Your task to perform on an android device: change text size in settings app Image 0: 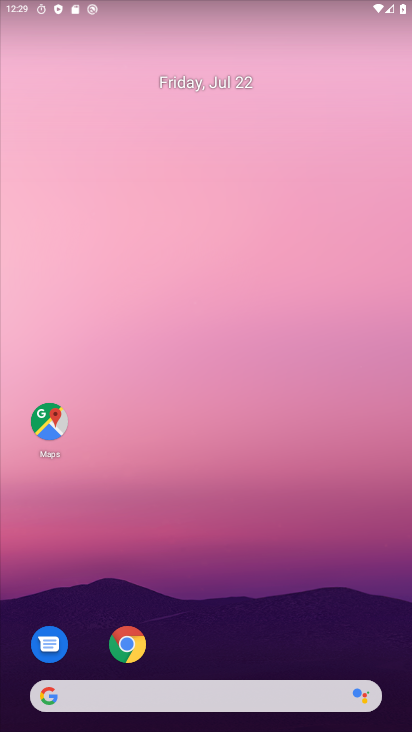
Step 0: drag from (209, 660) to (328, 105)
Your task to perform on an android device: change text size in settings app Image 1: 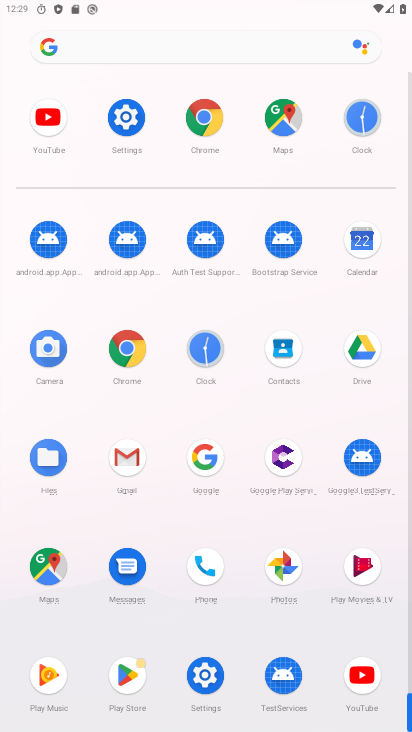
Step 1: click (207, 682)
Your task to perform on an android device: change text size in settings app Image 2: 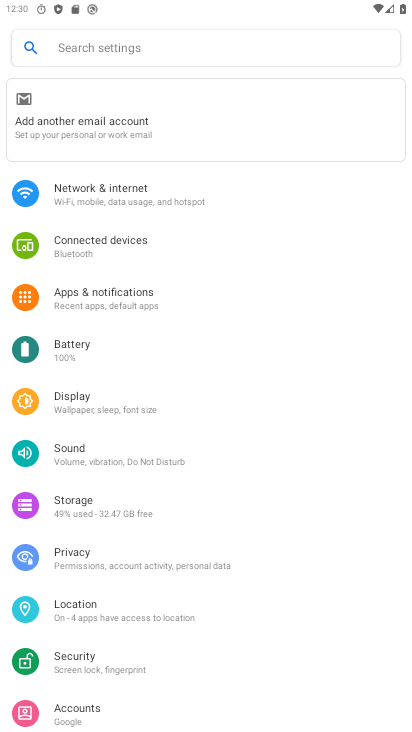
Step 2: click (138, 408)
Your task to perform on an android device: change text size in settings app Image 3: 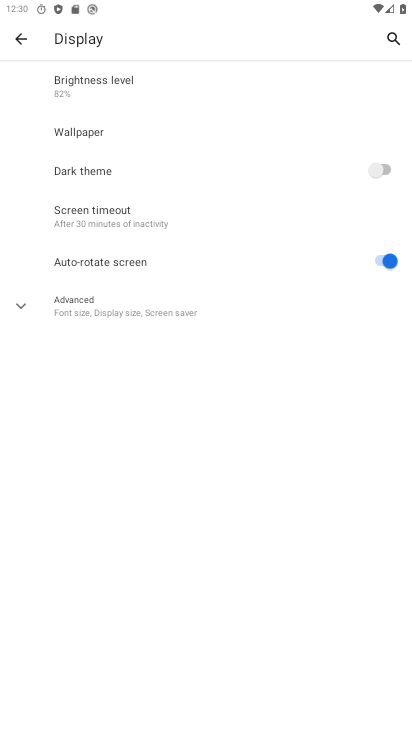
Step 3: click (121, 308)
Your task to perform on an android device: change text size in settings app Image 4: 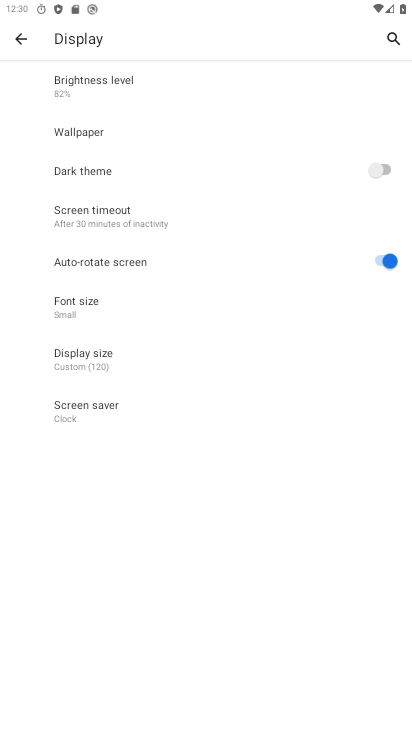
Step 4: click (94, 303)
Your task to perform on an android device: change text size in settings app Image 5: 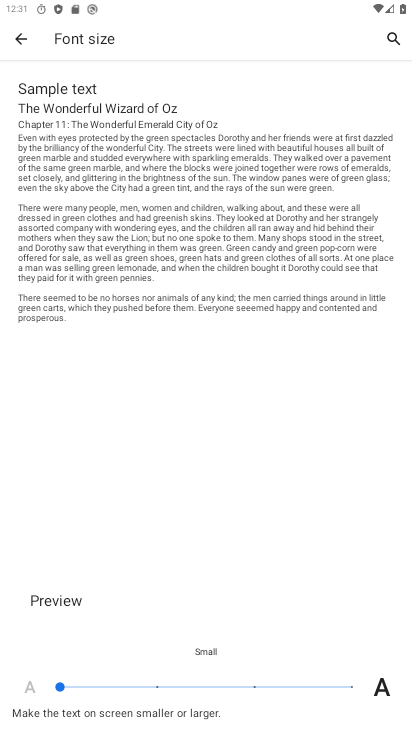
Step 5: task complete